Your task to perform on an android device: turn off wifi Image 0: 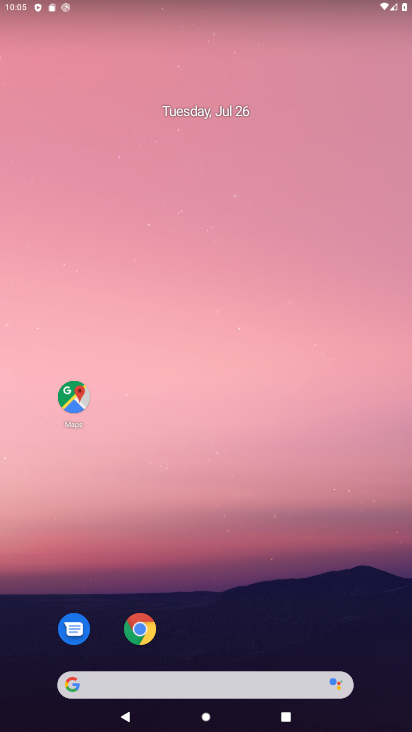
Step 0: drag from (172, 687) to (209, 138)
Your task to perform on an android device: turn off wifi Image 1: 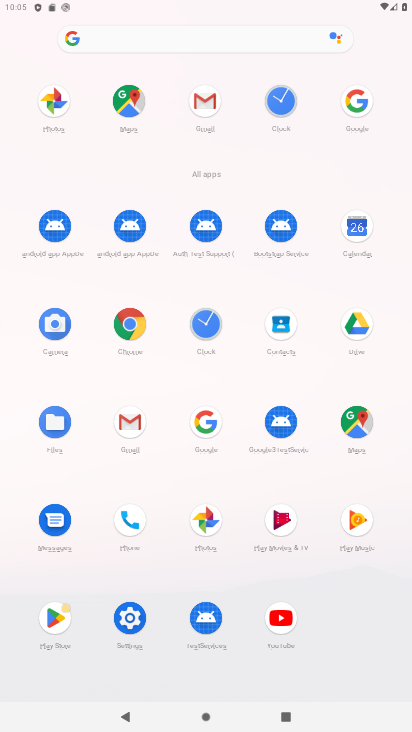
Step 1: click (129, 617)
Your task to perform on an android device: turn off wifi Image 2: 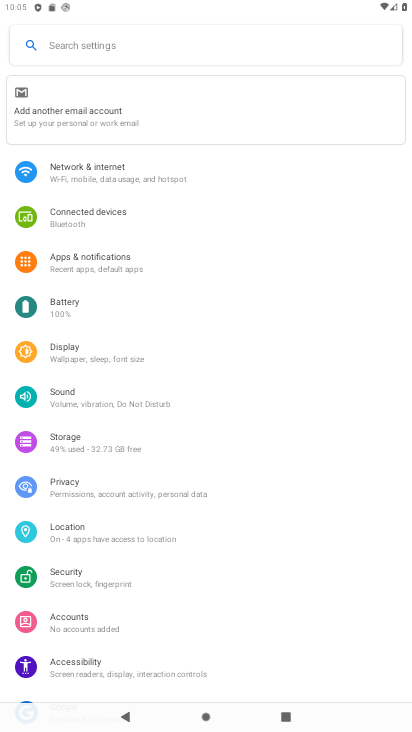
Step 2: click (97, 171)
Your task to perform on an android device: turn off wifi Image 3: 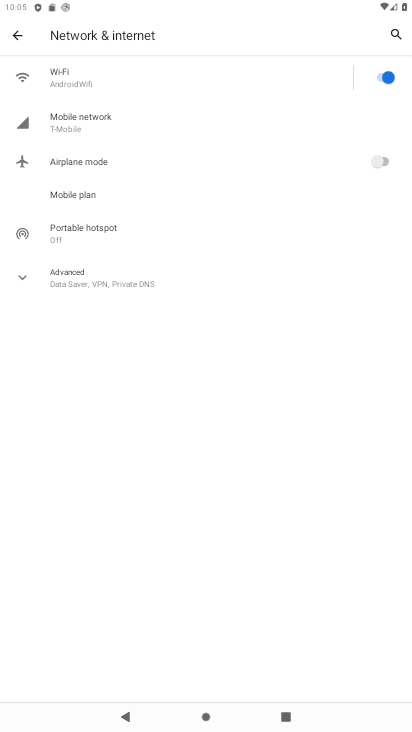
Step 3: click (380, 80)
Your task to perform on an android device: turn off wifi Image 4: 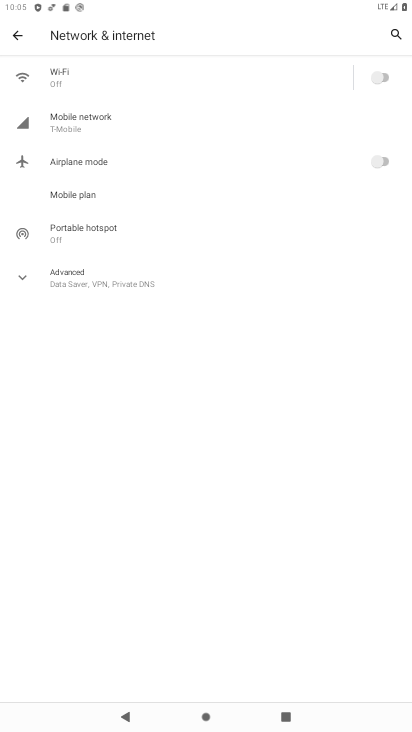
Step 4: task complete